Your task to perform on an android device: Search for pizza restaurants on Maps Image 0: 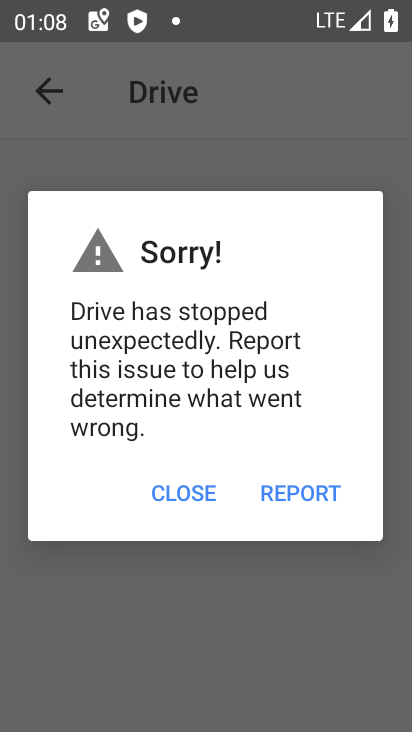
Step 0: press home button
Your task to perform on an android device: Search for pizza restaurants on Maps Image 1: 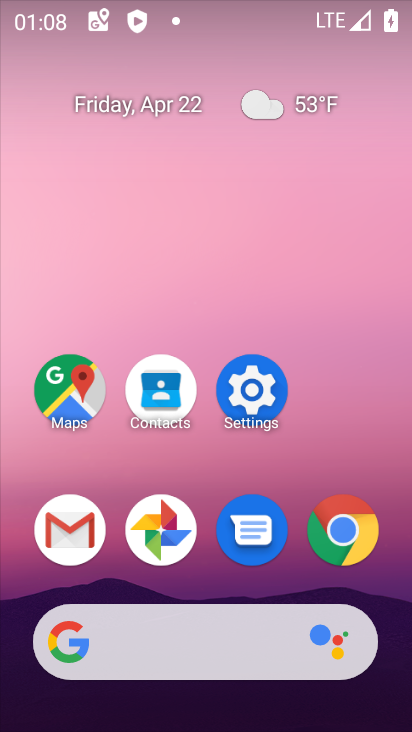
Step 1: click (67, 390)
Your task to perform on an android device: Search for pizza restaurants on Maps Image 2: 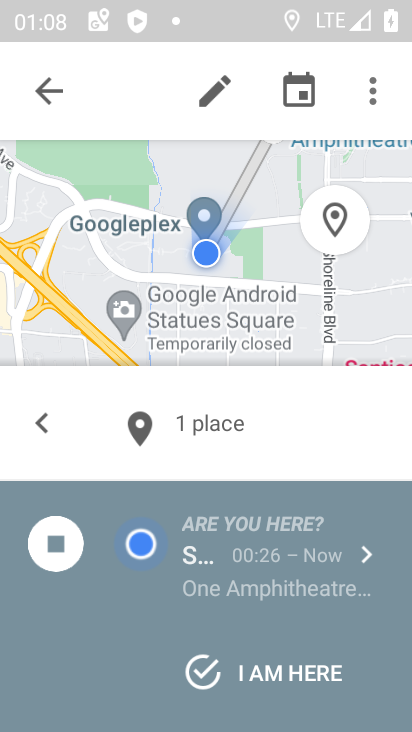
Step 2: click (45, 95)
Your task to perform on an android device: Search for pizza restaurants on Maps Image 3: 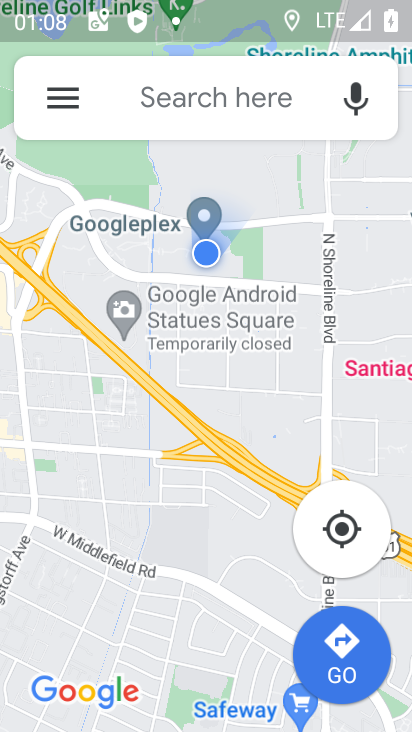
Step 3: click (180, 92)
Your task to perform on an android device: Search for pizza restaurants on Maps Image 4: 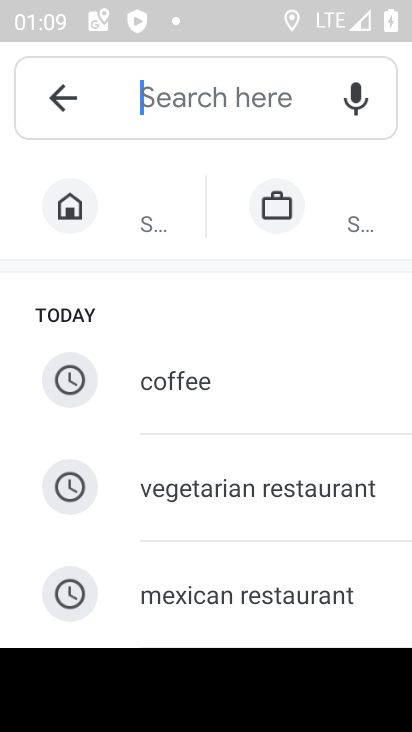
Step 4: type "pizza restaurants "
Your task to perform on an android device: Search for pizza restaurants on Maps Image 5: 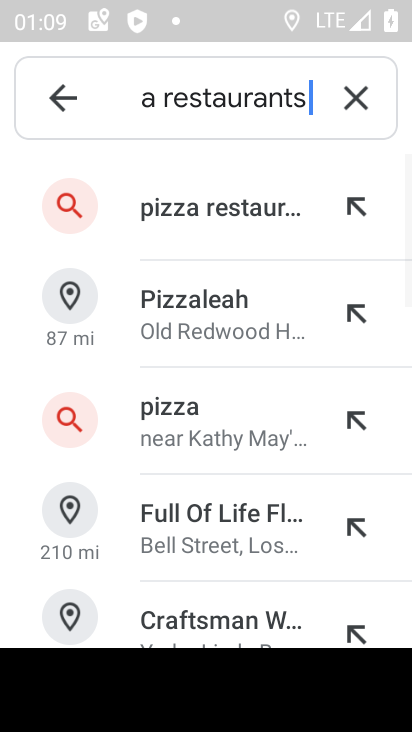
Step 5: click (234, 210)
Your task to perform on an android device: Search for pizza restaurants on Maps Image 6: 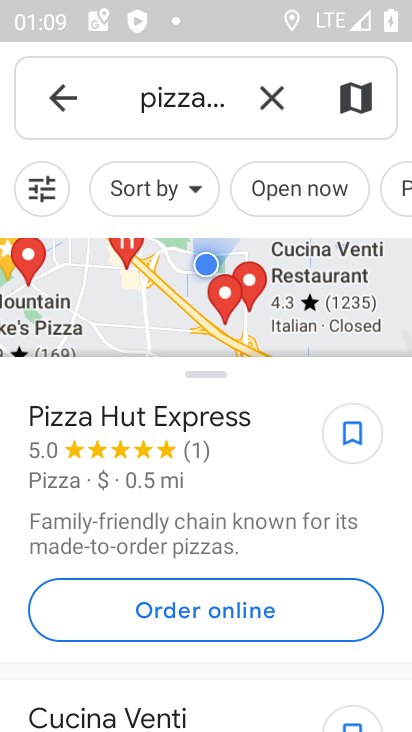
Step 6: task complete